Your task to perform on an android device: turn off data saver in the chrome app Image 0: 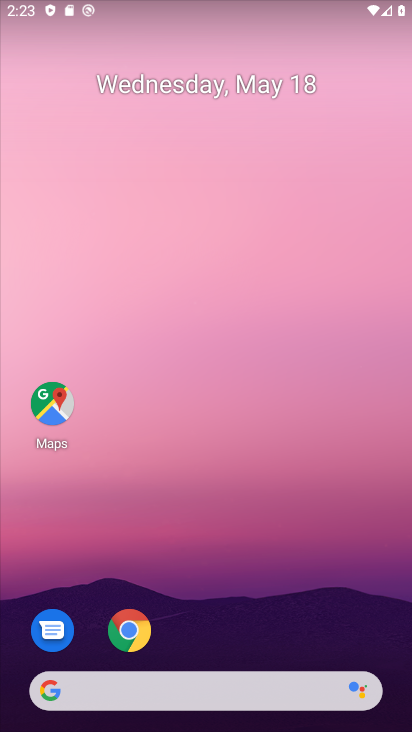
Step 0: click (127, 627)
Your task to perform on an android device: turn off data saver in the chrome app Image 1: 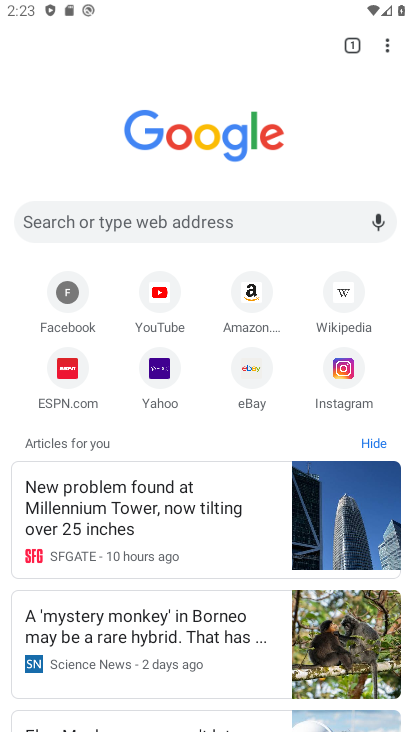
Step 1: click (392, 44)
Your task to perform on an android device: turn off data saver in the chrome app Image 2: 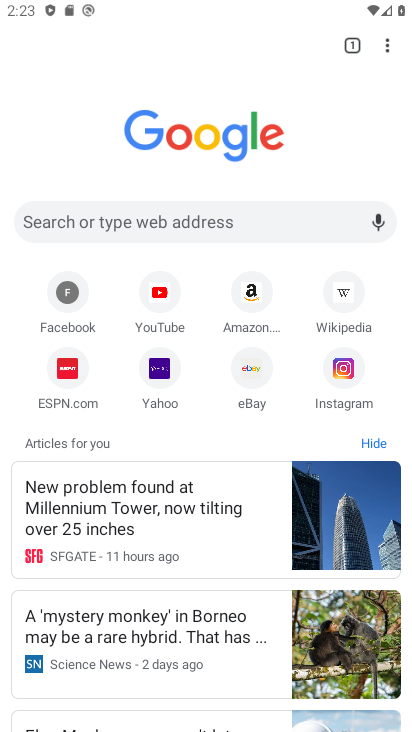
Step 2: click (386, 44)
Your task to perform on an android device: turn off data saver in the chrome app Image 3: 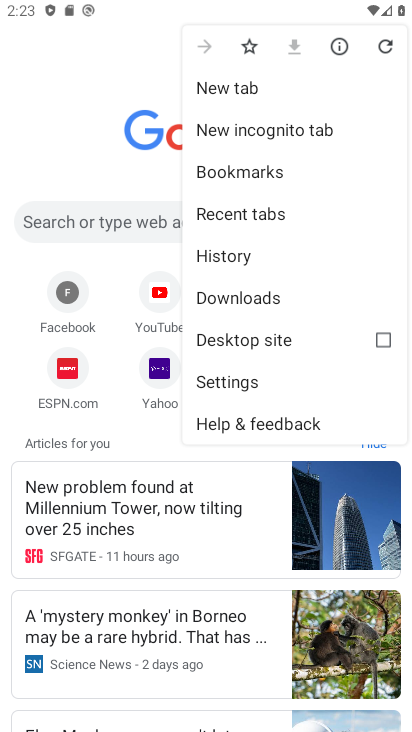
Step 3: click (265, 380)
Your task to perform on an android device: turn off data saver in the chrome app Image 4: 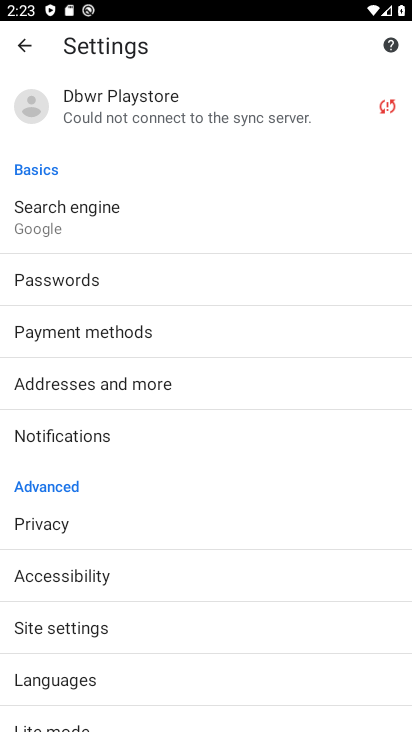
Step 4: click (126, 715)
Your task to perform on an android device: turn off data saver in the chrome app Image 5: 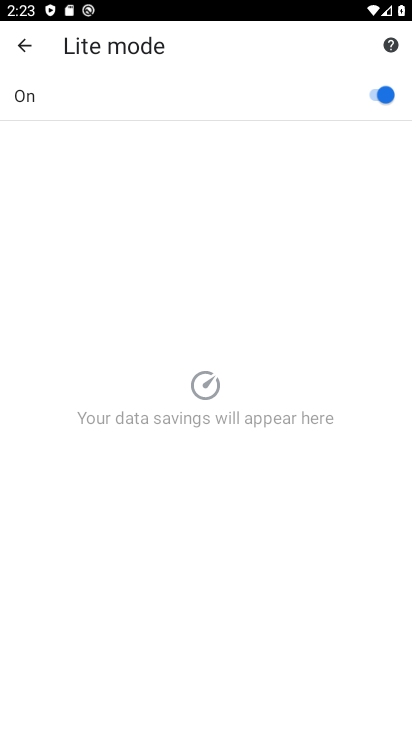
Step 5: click (377, 89)
Your task to perform on an android device: turn off data saver in the chrome app Image 6: 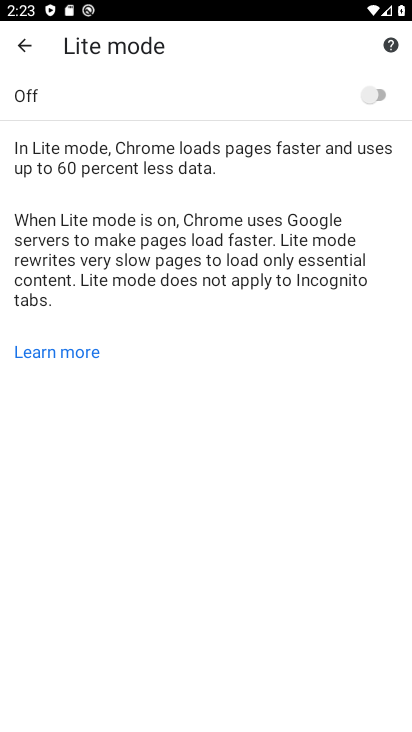
Step 6: task complete